Your task to perform on an android device: Add logitech g903 to the cart on bestbuy.com Image 0: 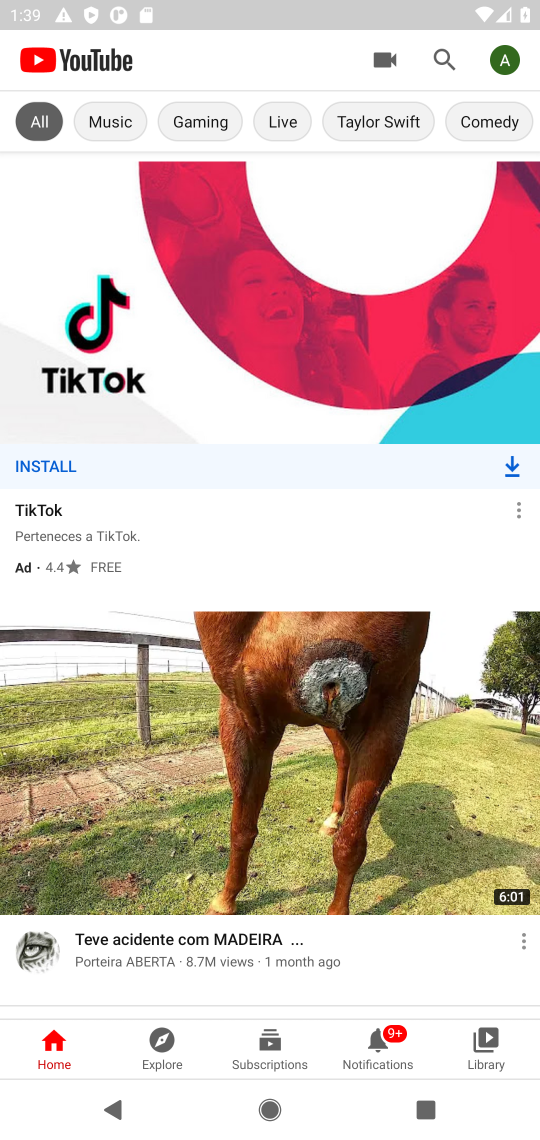
Step 0: press home button
Your task to perform on an android device: Add logitech g903 to the cart on bestbuy.com Image 1: 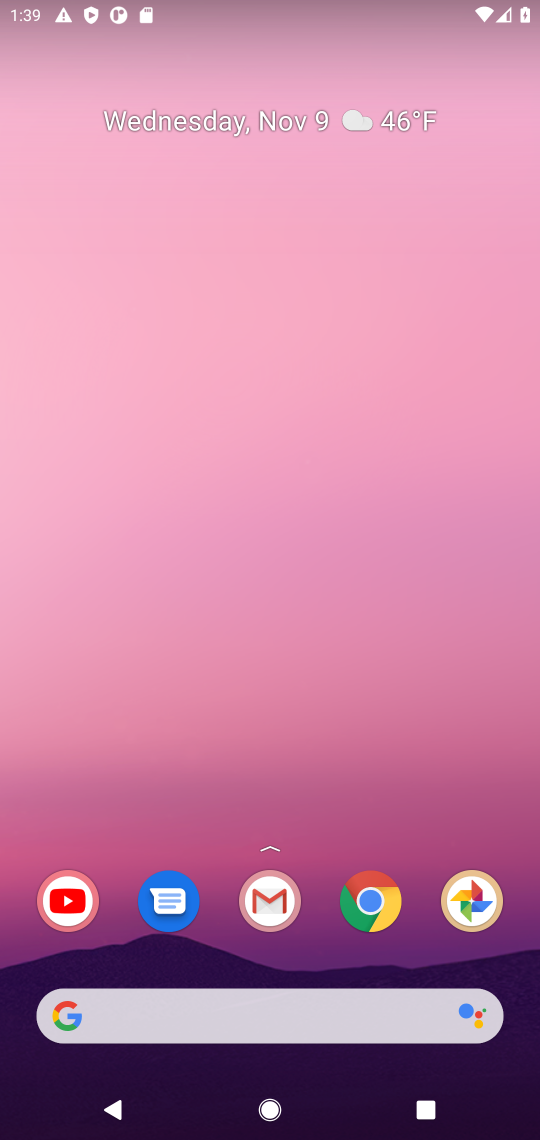
Step 1: click (370, 886)
Your task to perform on an android device: Add logitech g903 to the cart on bestbuy.com Image 2: 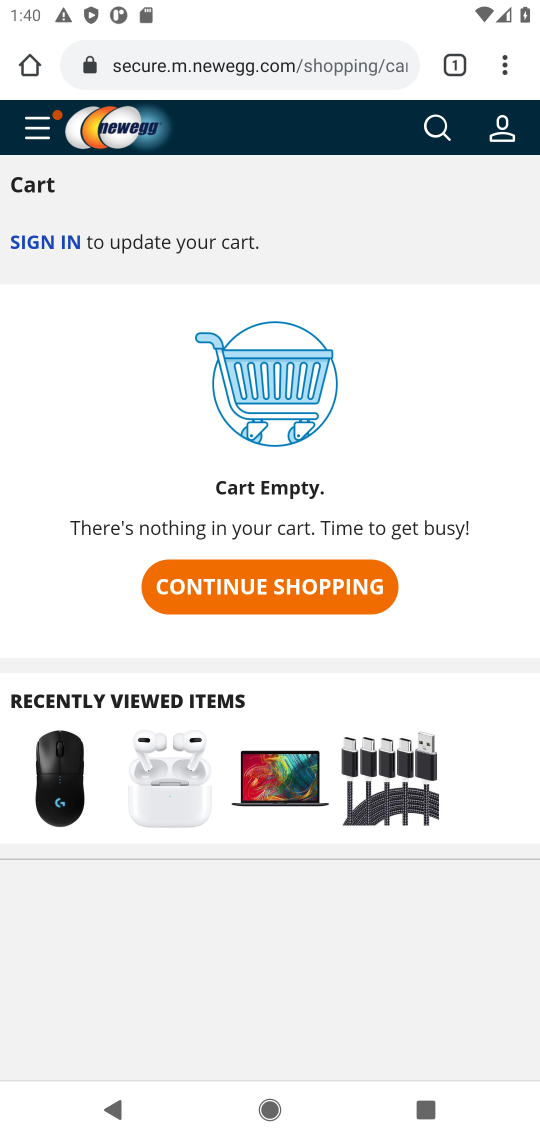
Step 2: click (318, 59)
Your task to perform on an android device: Add logitech g903 to the cart on bestbuy.com Image 3: 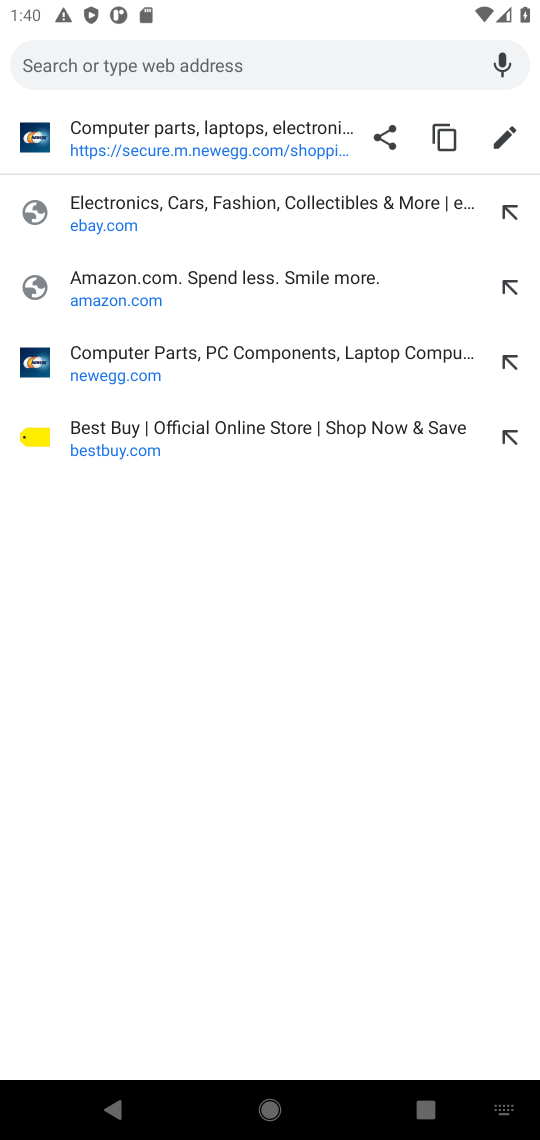
Step 3: type "bestbuy.com"
Your task to perform on an android device: Add logitech g903 to the cart on bestbuy.com Image 4: 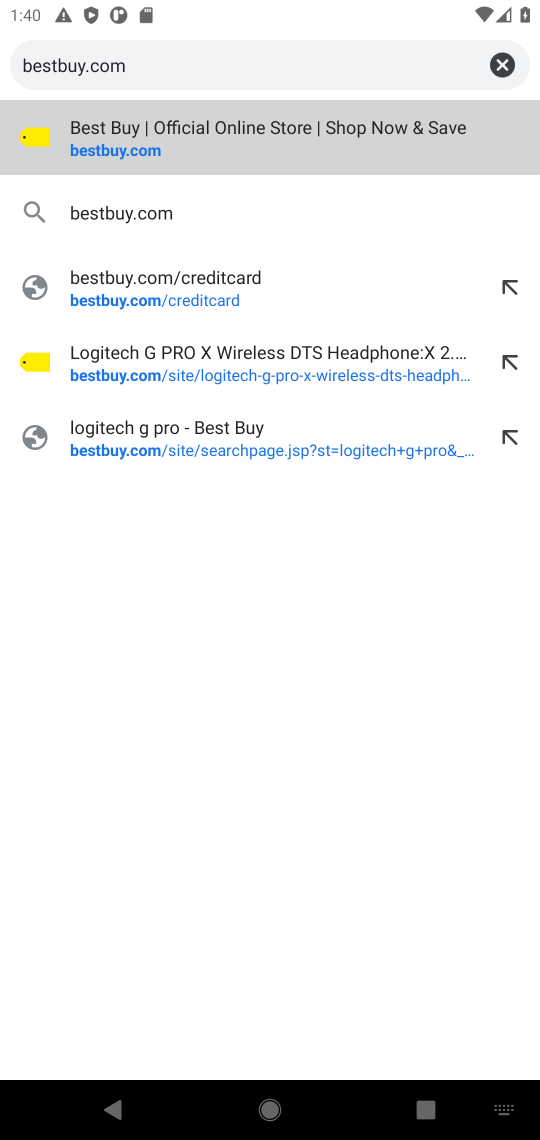
Step 4: click (140, 207)
Your task to perform on an android device: Add logitech g903 to the cart on bestbuy.com Image 5: 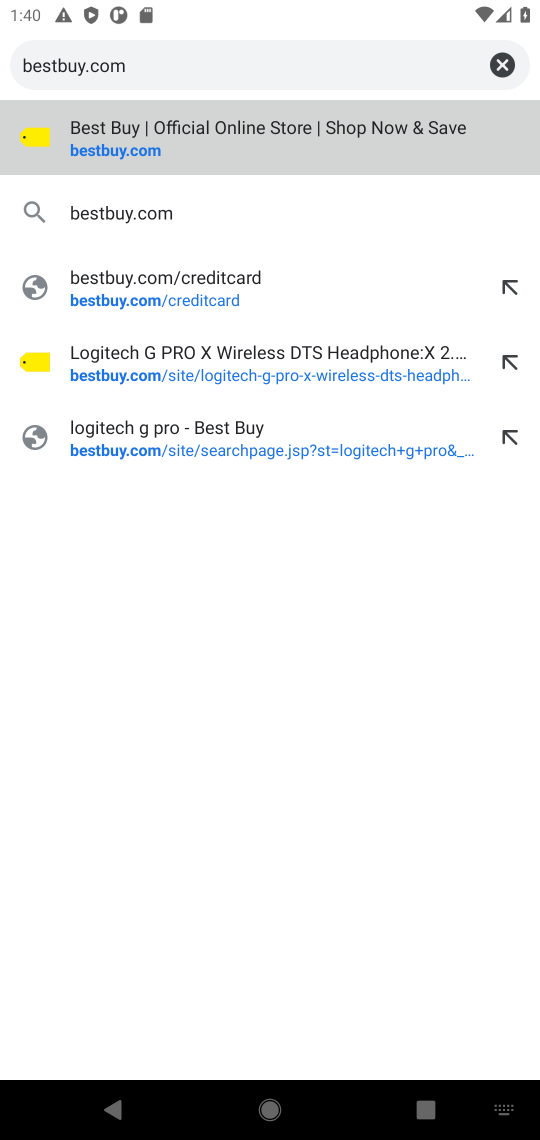
Step 5: click (142, 211)
Your task to perform on an android device: Add logitech g903 to the cart on bestbuy.com Image 6: 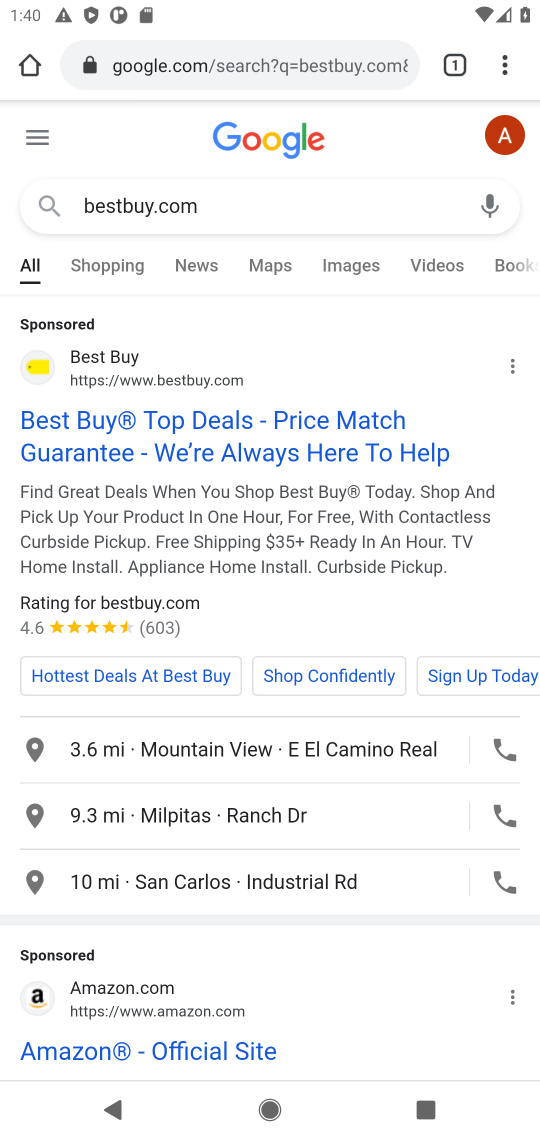
Step 6: click (155, 381)
Your task to perform on an android device: Add logitech g903 to the cart on bestbuy.com Image 7: 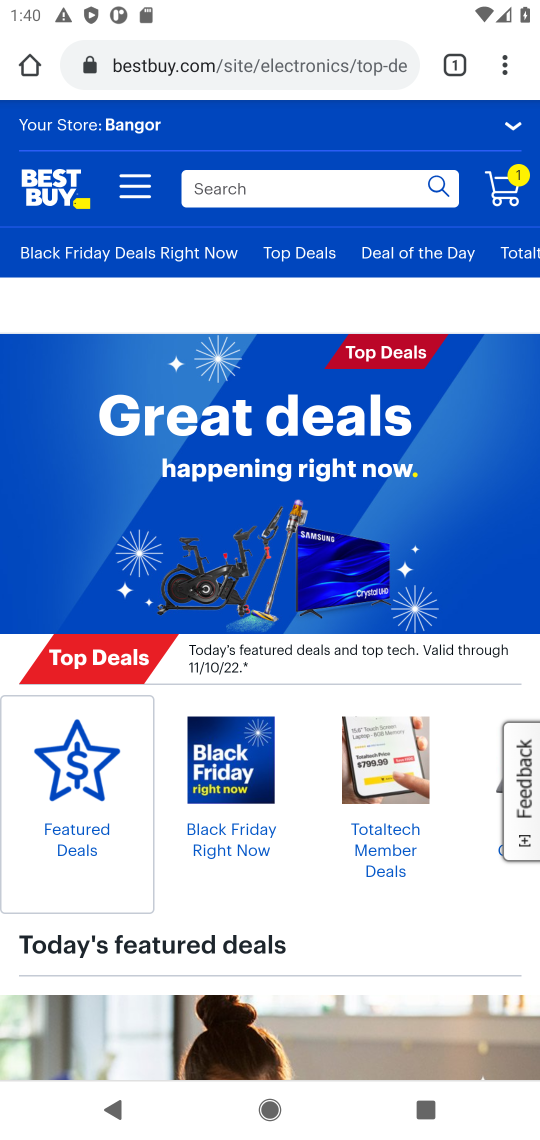
Step 7: click (346, 192)
Your task to perform on an android device: Add logitech g903 to the cart on bestbuy.com Image 8: 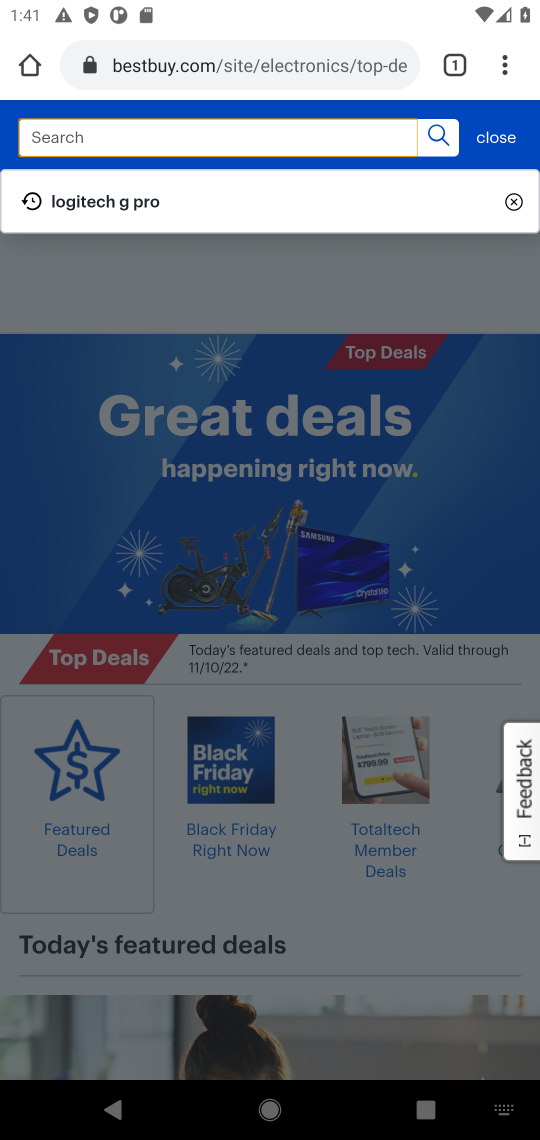
Step 8: type "logitech g903"
Your task to perform on an android device: Add logitech g903 to the cart on bestbuy.com Image 9: 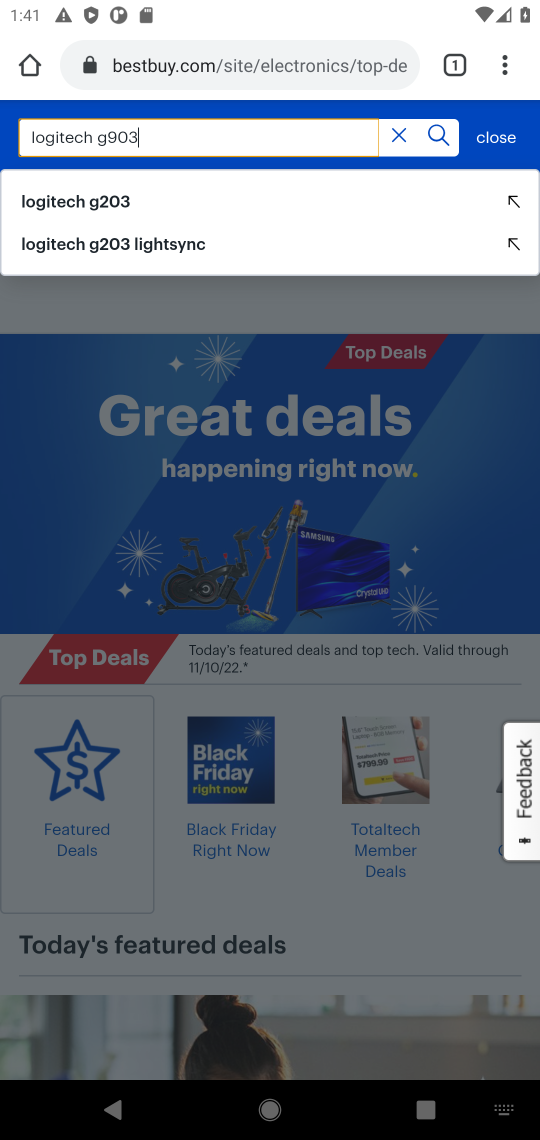
Step 9: click (509, 410)
Your task to perform on an android device: Add logitech g903 to the cart on bestbuy.com Image 10: 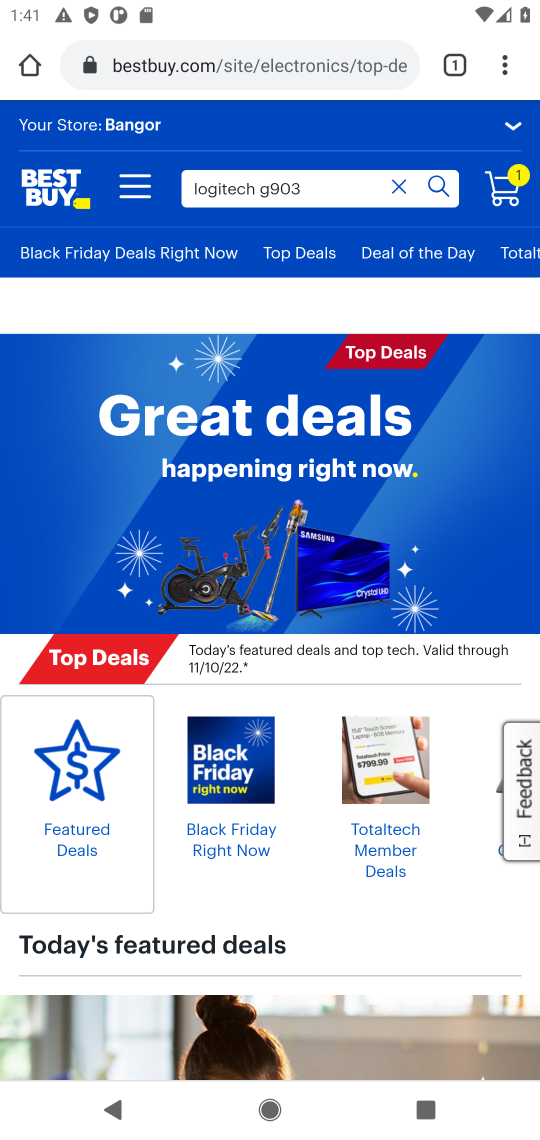
Step 10: drag from (394, 935) to (436, 278)
Your task to perform on an android device: Add logitech g903 to the cart on bestbuy.com Image 11: 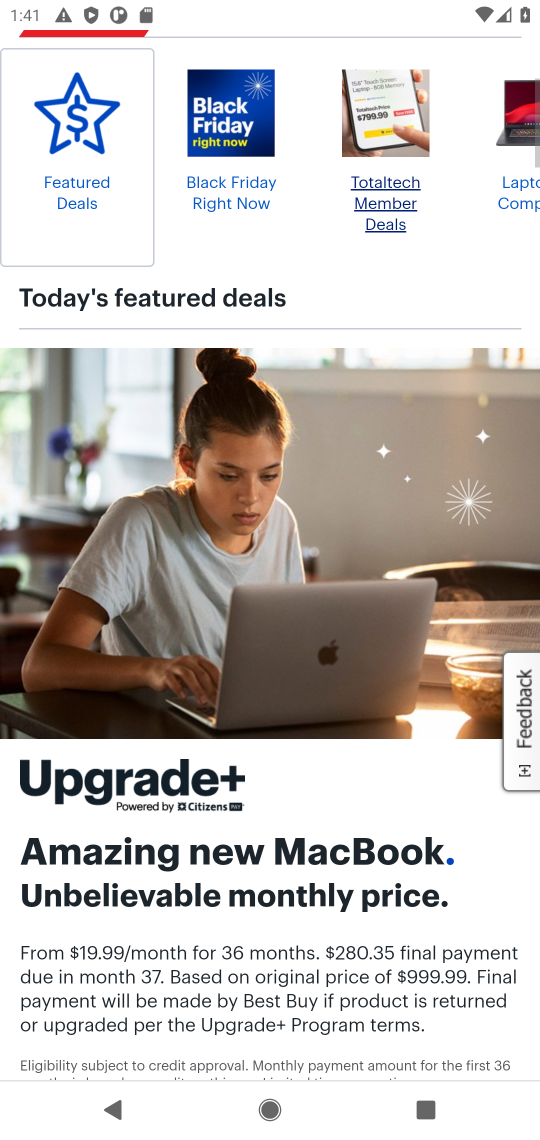
Step 11: drag from (389, 873) to (382, 1132)
Your task to perform on an android device: Add logitech g903 to the cart on bestbuy.com Image 12: 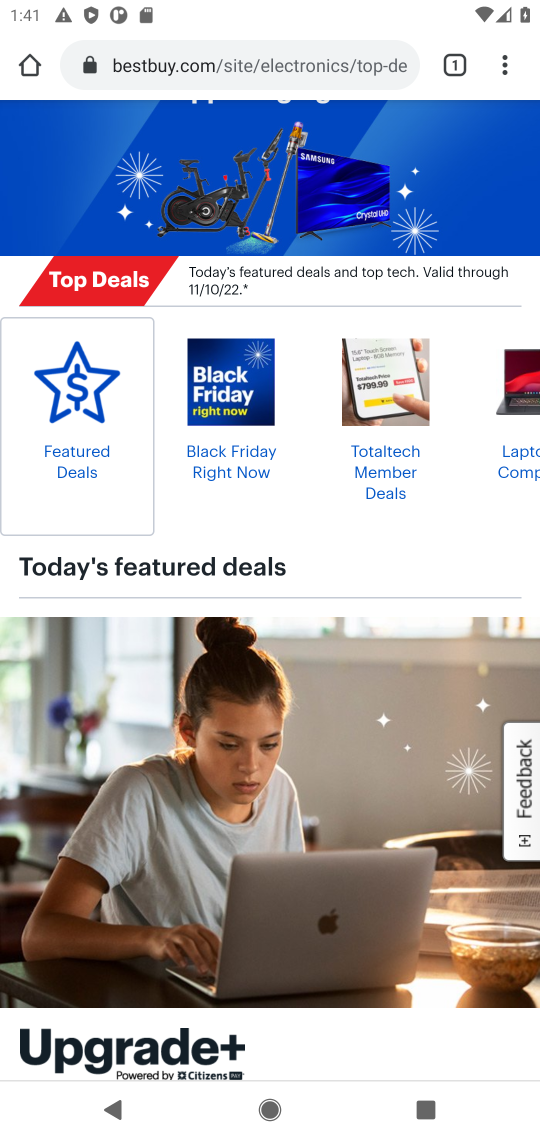
Step 12: drag from (346, 242) to (407, 982)
Your task to perform on an android device: Add logitech g903 to the cart on bestbuy.com Image 13: 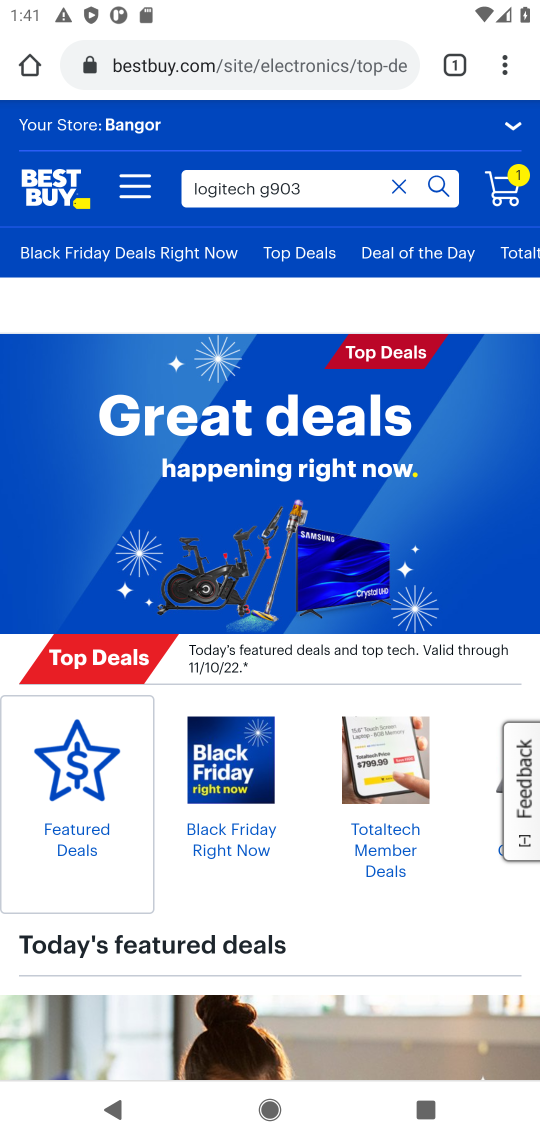
Step 13: click (323, 189)
Your task to perform on an android device: Add logitech g903 to the cart on bestbuy.com Image 14: 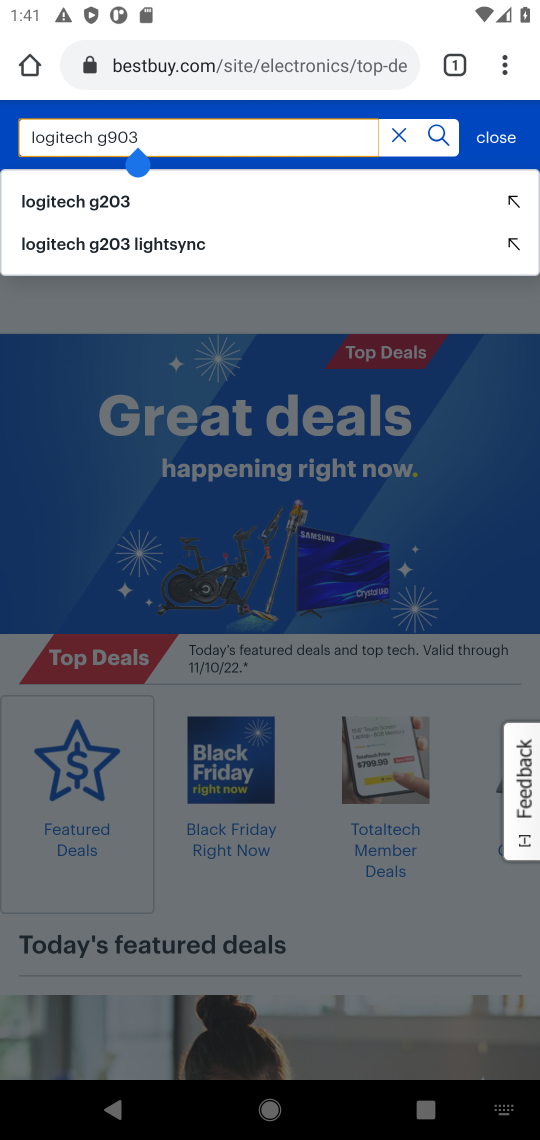
Step 14: task complete